Your task to perform on an android device: search for starred emails in the gmail app Image 0: 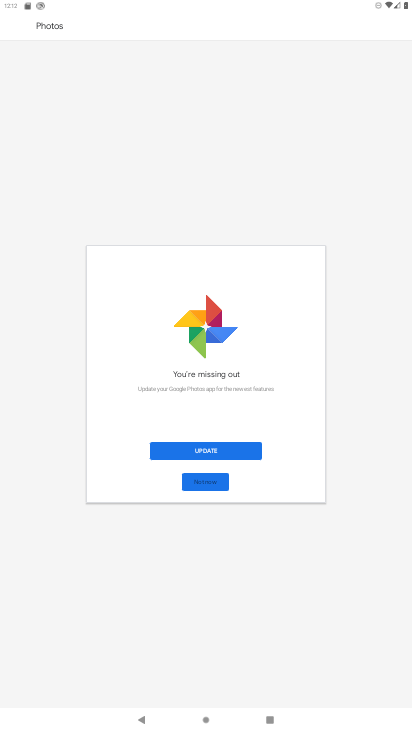
Step 0: press home button
Your task to perform on an android device: search for starred emails in the gmail app Image 1: 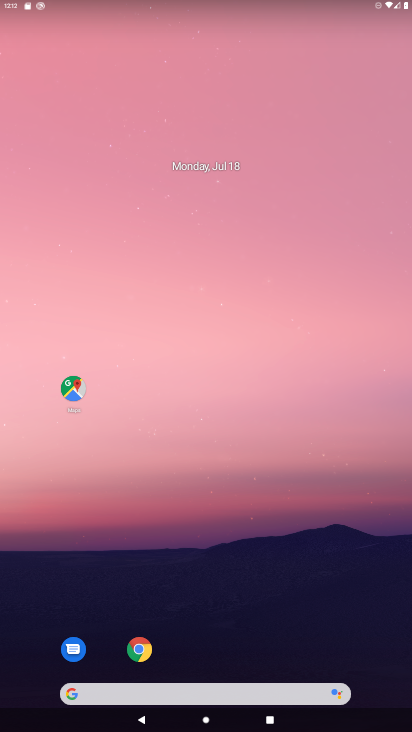
Step 1: drag from (180, 660) to (232, 352)
Your task to perform on an android device: search for starred emails in the gmail app Image 2: 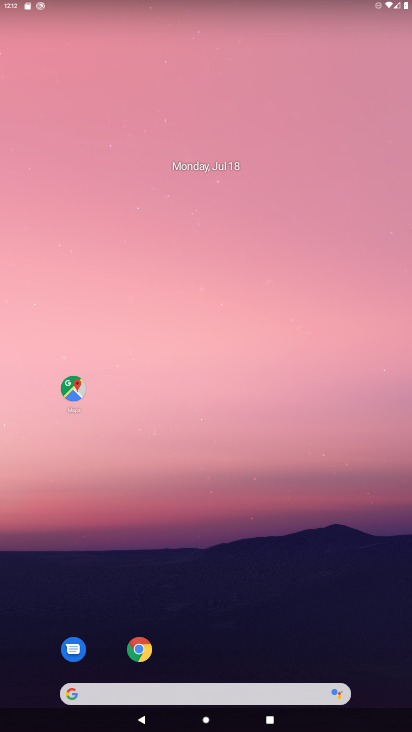
Step 2: drag from (197, 657) to (189, 171)
Your task to perform on an android device: search for starred emails in the gmail app Image 3: 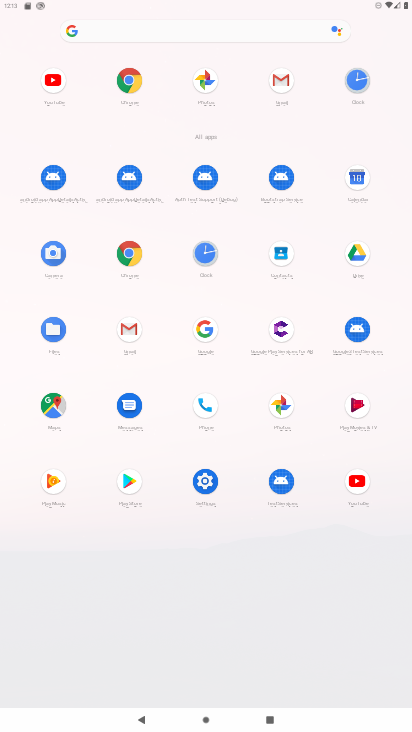
Step 3: click (278, 79)
Your task to perform on an android device: search for starred emails in the gmail app Image 4: 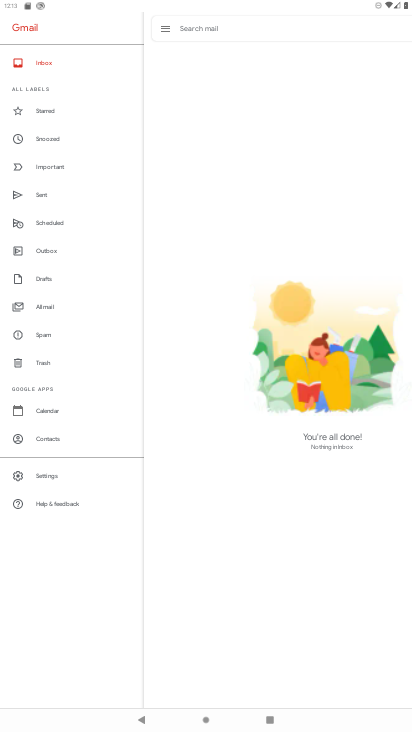
Step 4: click (51, 227)
Your task to perform on an android device: search for starred emails in the gmail app Image 5: 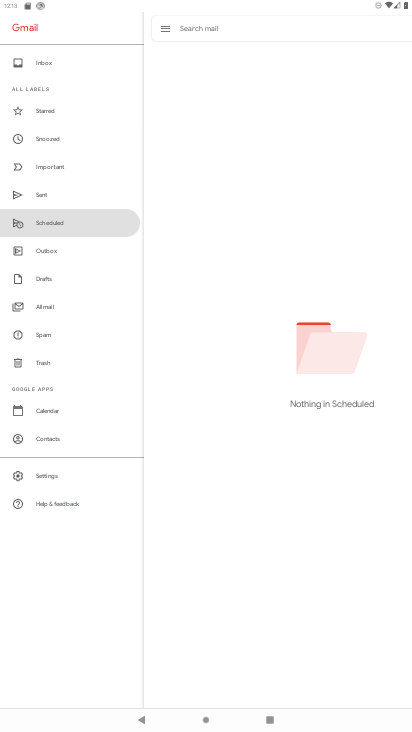
Step 5: click (60, 148)
Your task to perform on an android device: search for starred emails in the gmail app Image 6: 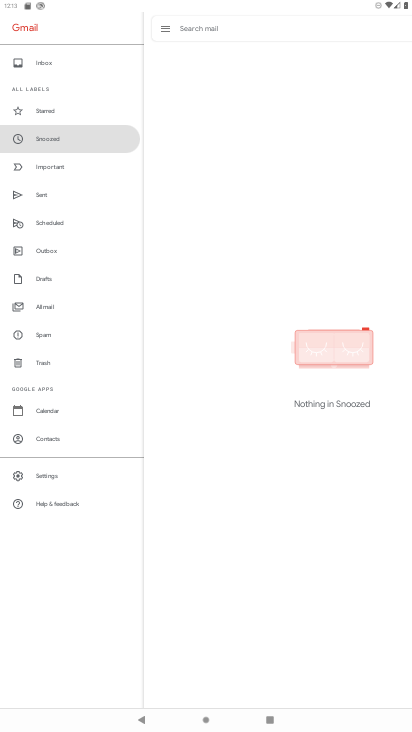
Step 6: click (57, 112)
Your task to perform on an android device: search for starred emails in the gmail app Image 7: 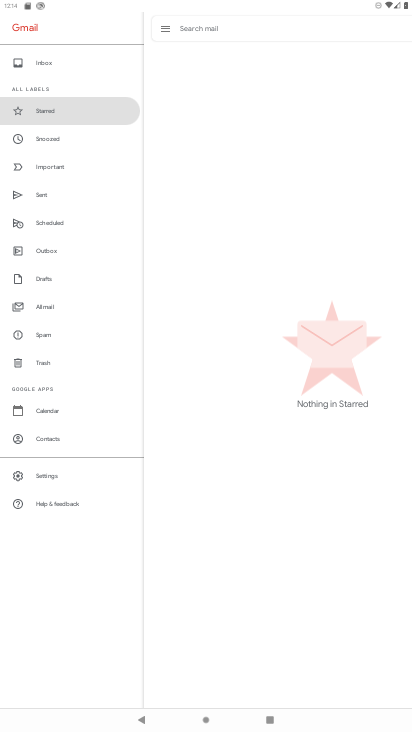
Step 7: task complete